Your task to perform on an android device: Show me productivity apps on the Play Store Image 0: 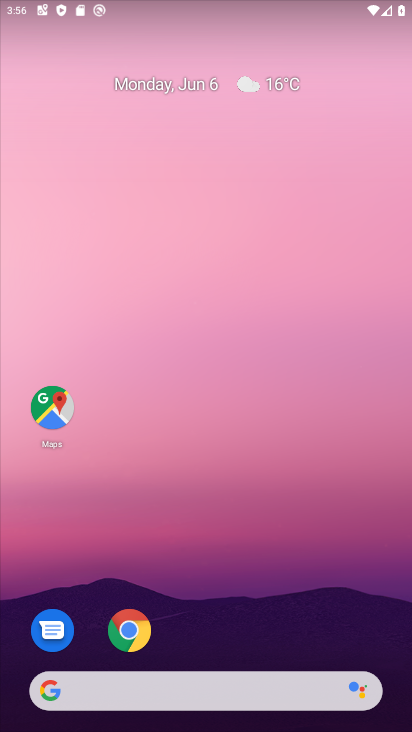
Step 0: drag from (281, 604) to (282, 121)
Your task to perform on an android device: Show me productivity apps on the Play Store Image 1: 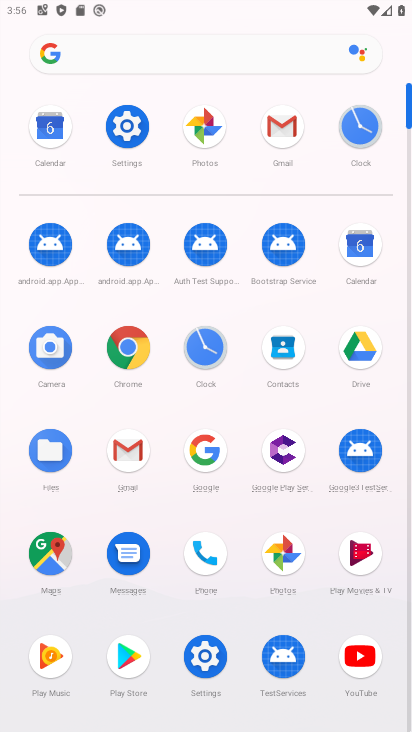
Step 1: click (106, 680)
Your task to perform on an android device: Show me productivity apps on the Play Store Image 2: 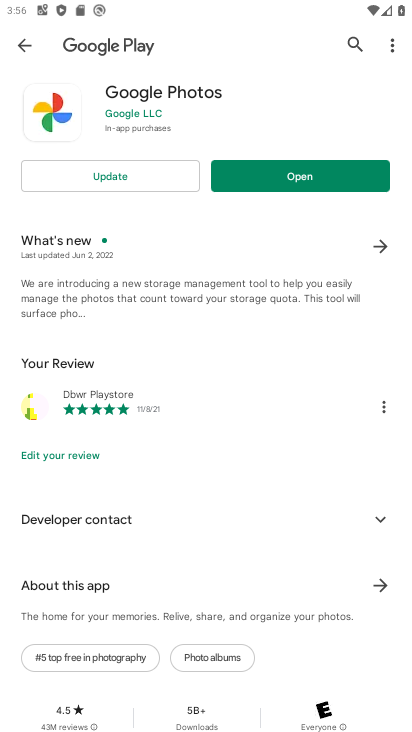
Step 2: click (299, 176)
Your task to perform on an android device: Show me productivity apps on the Play Store Image 3: 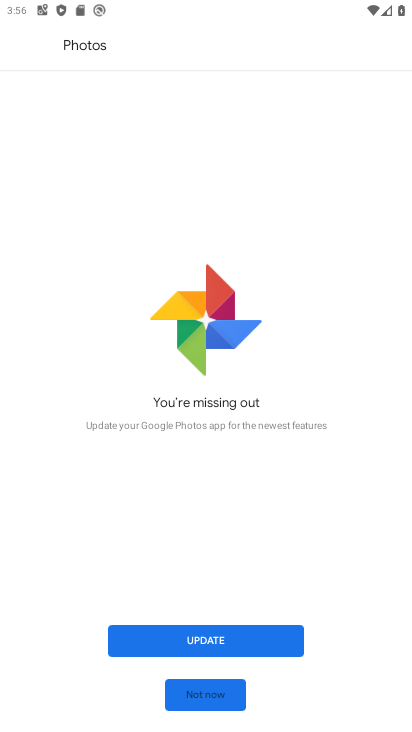
Step 3: press home button
Your task to perform on an android device: Show me productivity apps on the Play Store Image 4: 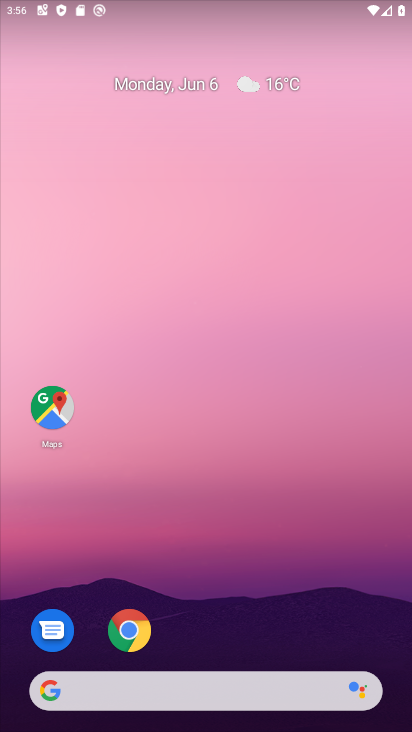
Step 4: drag from (310, 558) to (354, 113)
Your task to perform on an android device: Show me productivity apps on the Play Store Image 5: 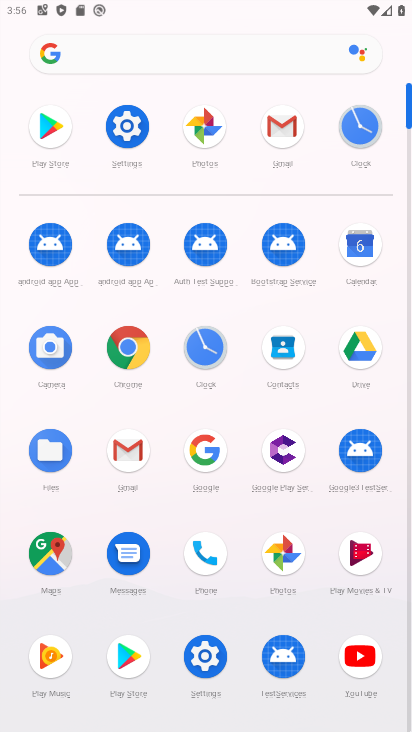
Step 5: click (119, 645)
Your task to perform on an android device: Show me productivity apps on the Play Store Image 6: 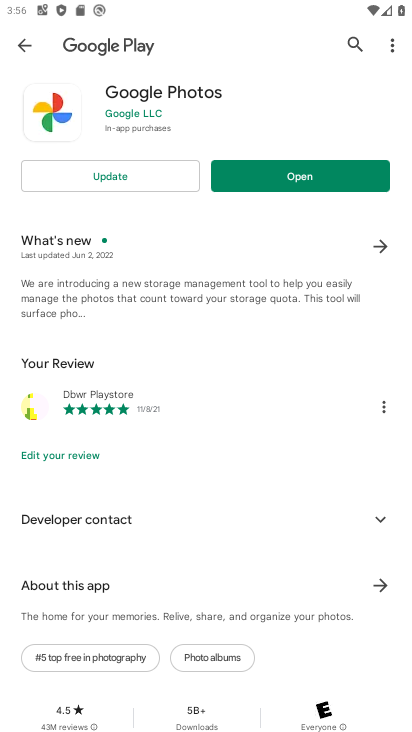
Step 6: click (22, 46)
Your task to perform on an android device: Show me productivity apps on the Play Store Image 7: 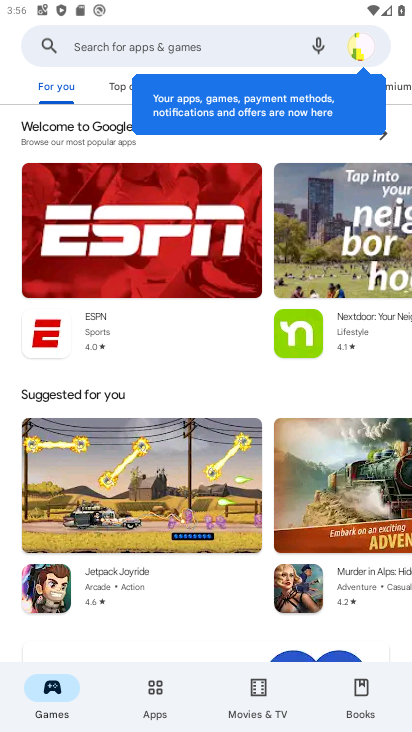
Step 7: click (169, 672)
Your task to perform on an android device: Show me productivity apps on the Play Store Image 8: 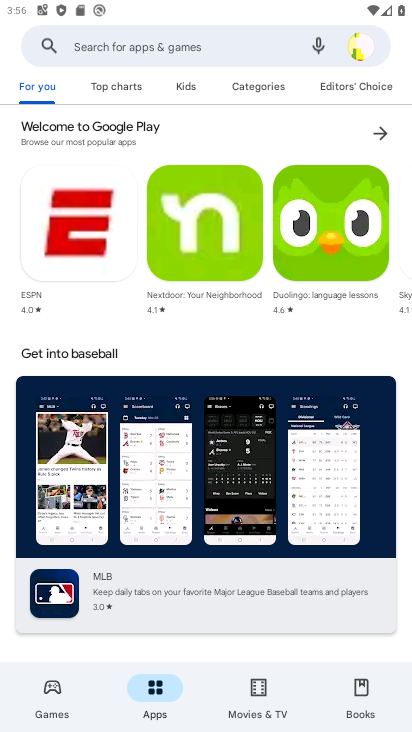
Step 8: drag from (211, 541) to (301, 83)
Your task to perform on an android device: Show me productivity apps on the Play Store Image 9: 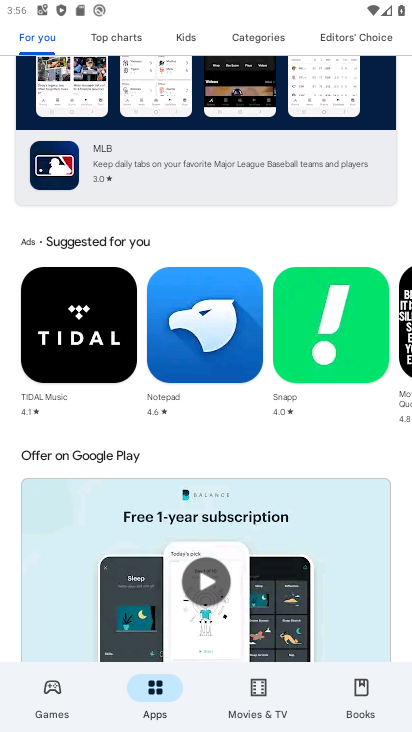
Step 9: drag from (188, 579) to (262, 196)
Your task to perform on an android device: Show me productivity apps on the Play Store Image 10: 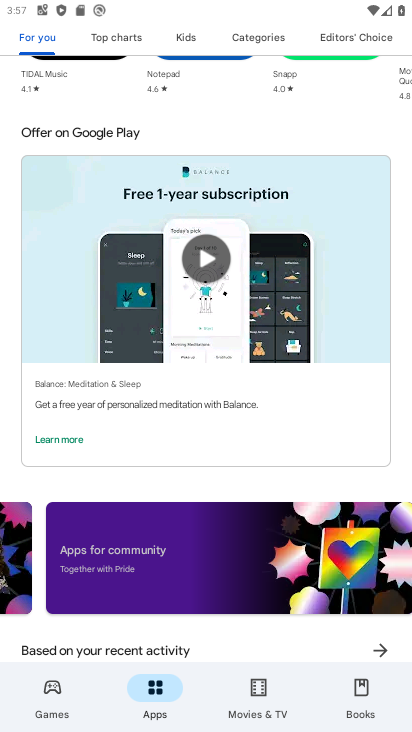
Step 10: drag from (204, 520) to (281, 76)
Your task to perform on an android device: Show me productivity apps on the Play Store Image 11: 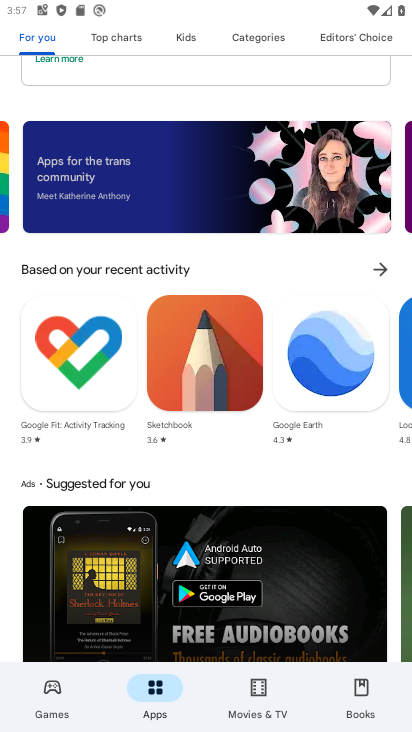
Step 11: drag from (267, 562) to (288, 189)
Your task to perform on an android device: Show me productivity apps on the Play Store Image 12: 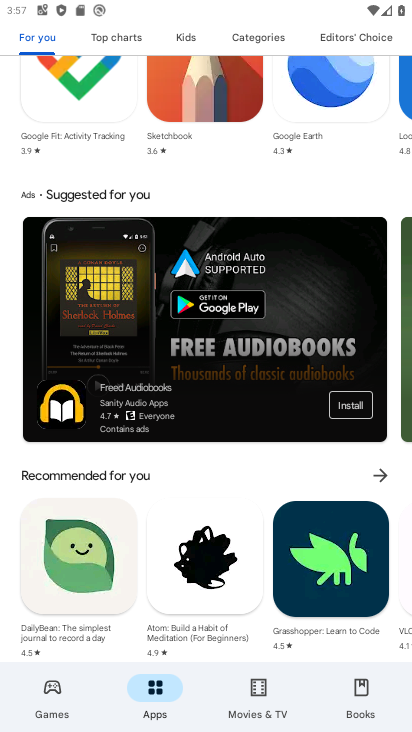
Step 12: drag from (211, 565) to (302, 132)
Your task to perform on an android device: Show me productivity apps on the Play Store Image 13: 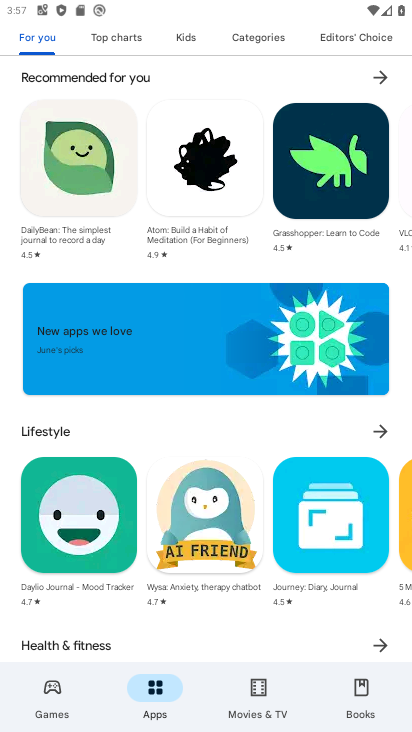
Step 13: drag from (196, 606) to (247, 141)
Your task to perform on an android device: Show me productivity apps on the Play Store Image 14: 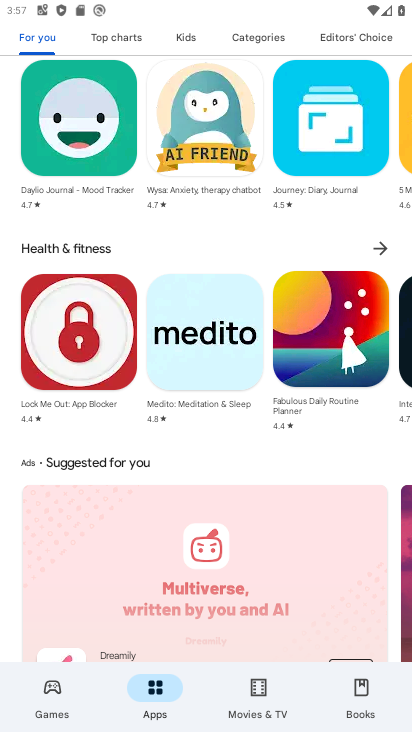
Step 14: drag from (207, 377) to (236, 162)
Your task to perform on an android device: Show me productivity apps on the Play Store Image 15: 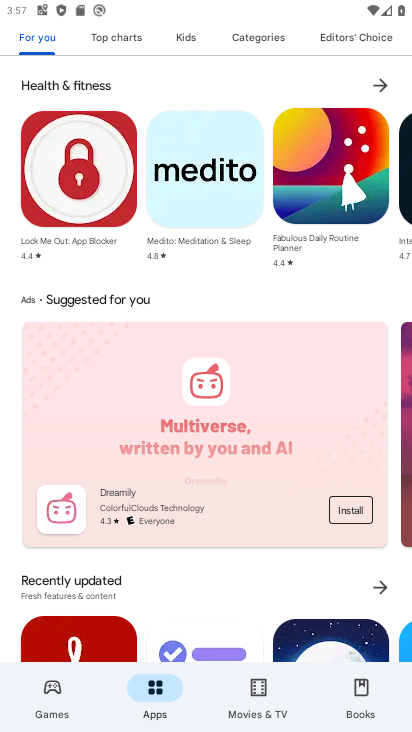
Step 15: drag from (186, 598) to (245, 101)
Your task to perform on an android device: Show me productivity apps on the Play Store Image 16: 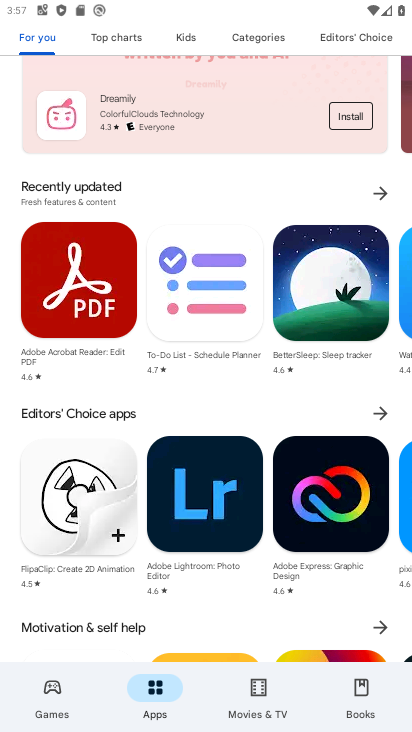
Step 16: drag from (188, 620) to (225, 161)
Your task to perform on an android device: Show me productivity apps on the Play Store Image 17: 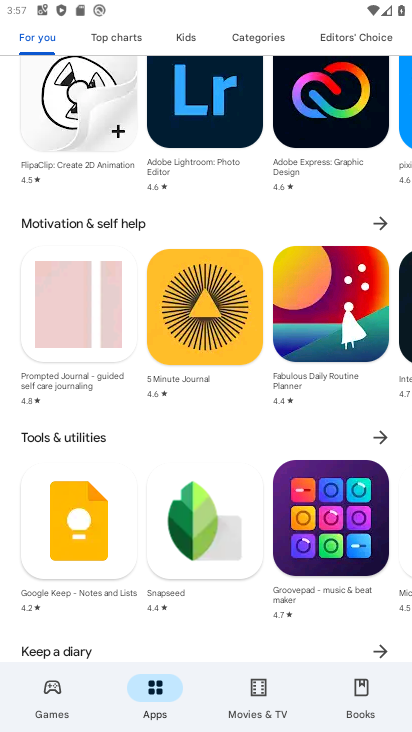
Step 17: drag from (124, 597) to (206, 165)
Your task to perform on an android device: Show me productivity apps on the Play Store Image 18: 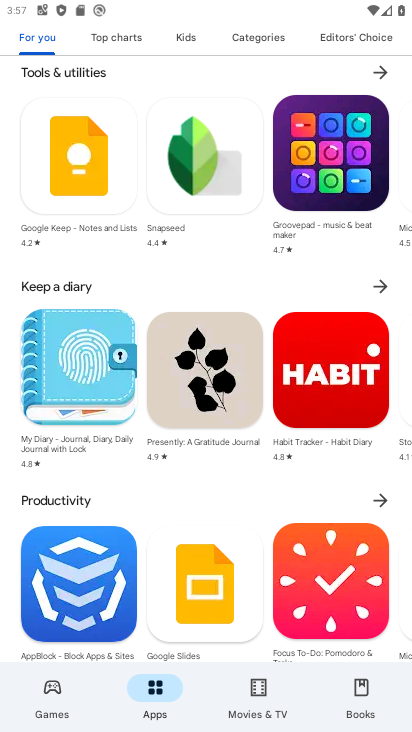
Step 18: click (390, 501)
Your task to perform on an android device: Show me productivity apps on the Play Store Image 19: 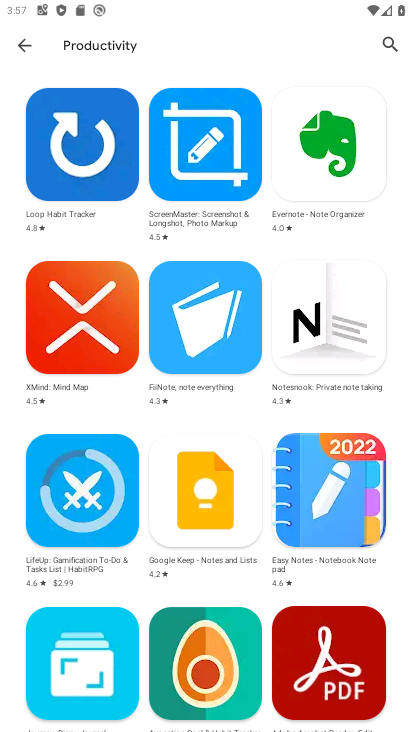
Step 19: task complete